Your task to perform on an android device: Check the weather Image 0: 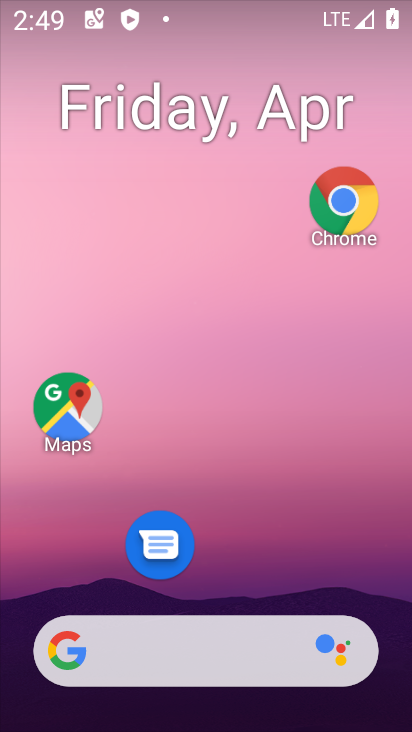
Step 0: click (166, 635)
Your task to perform on an android device: Check the weather Image 1: 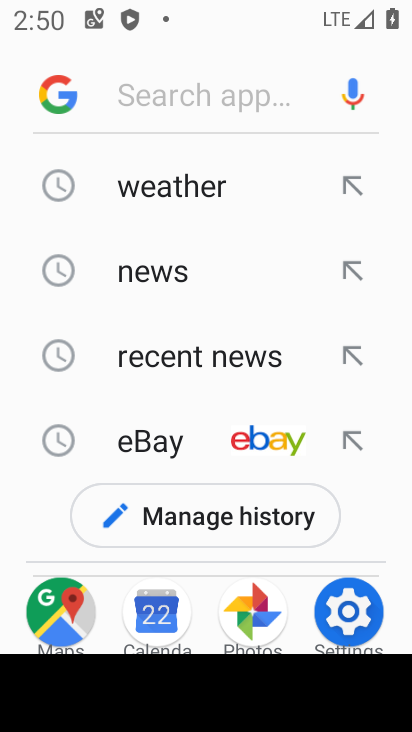
Step 1: click (138, 189)
Your task to perform on an android device: Check the weather Image 2: 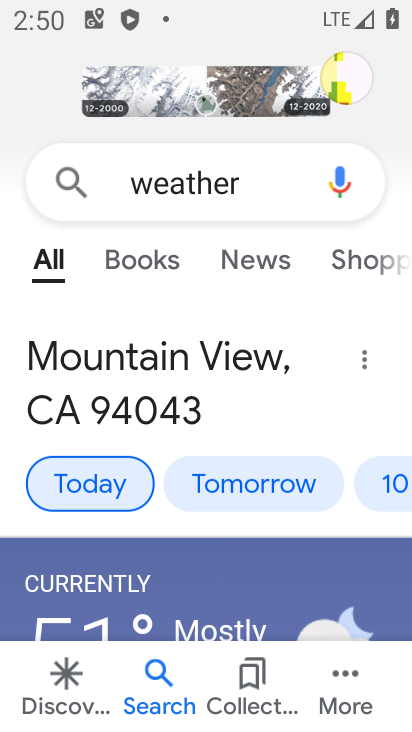
Step 2: task complete